Your task to perform on an android device: What's the news in Puerto Rico? Image 0: 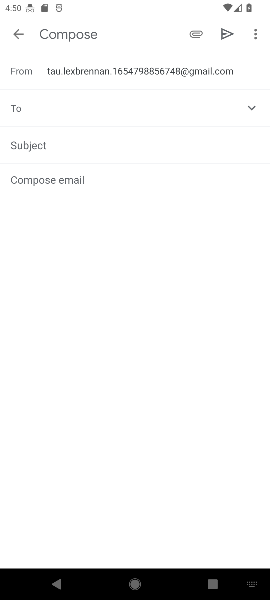
Step 0: press home button
Your task to perform on an android device: What's the news in Puerto Rico? Image 1: 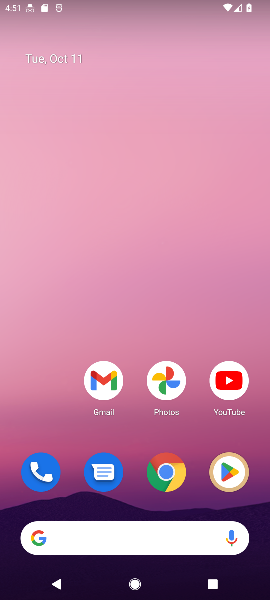
Step 1: click (158, 481)
Your task to perform on an android device: What's the news in Puerto Rico? Image 2: 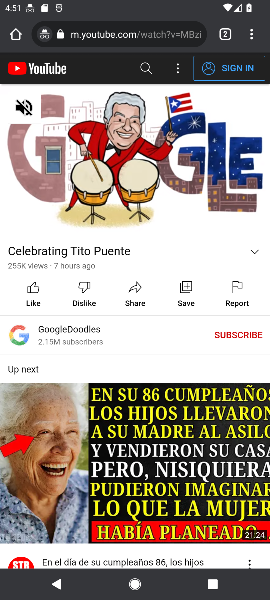
Step 2: click (96, 40)
Your task to perform on an android device: What's the news in Puerto Rico? Image 3: 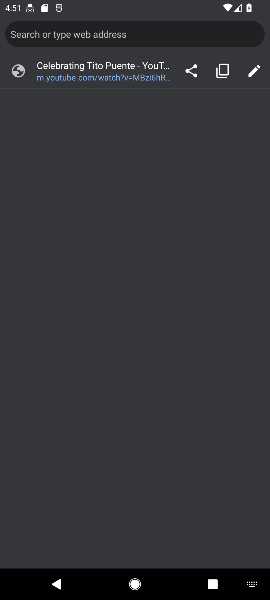
Step 3: type "What's the news in Puerto Rico?"
Your task to perform on an android device: What's the news in Puerto Rico? Image 4: 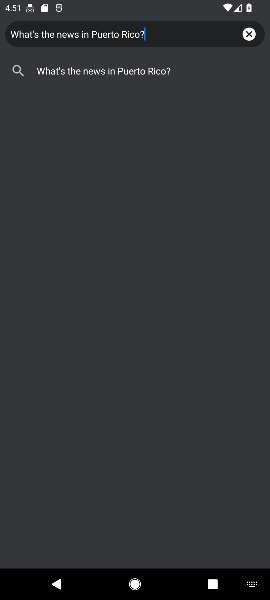
Step 4: click (181, 66)
Your task to perform on an android device: What's the news in Puerto Rico? Image 5: 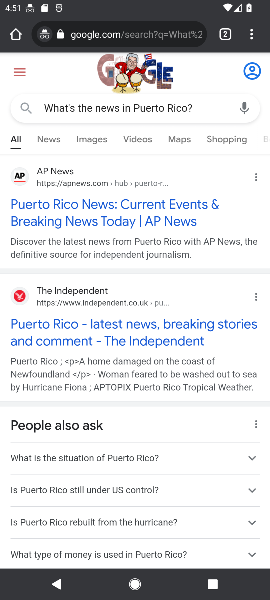
Step 5: click (57, 141)
Your task to perform on an android device: What's the news in Puerto Rico? Image 6: 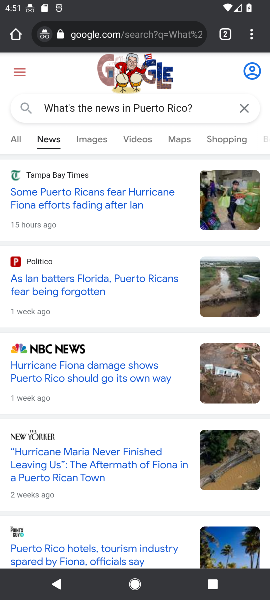
Step 6: task complete